Your task to perform on an android device: open chrome privacy settings Image 0: 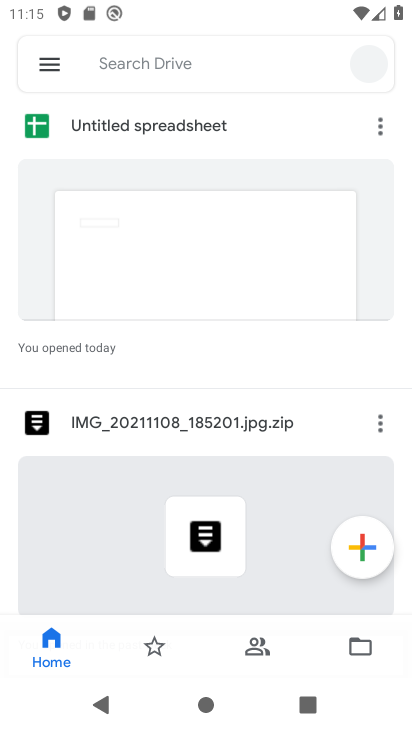
Step 0: press home button
Your task to perform on an android device: open chrome privacy settings Image 1: 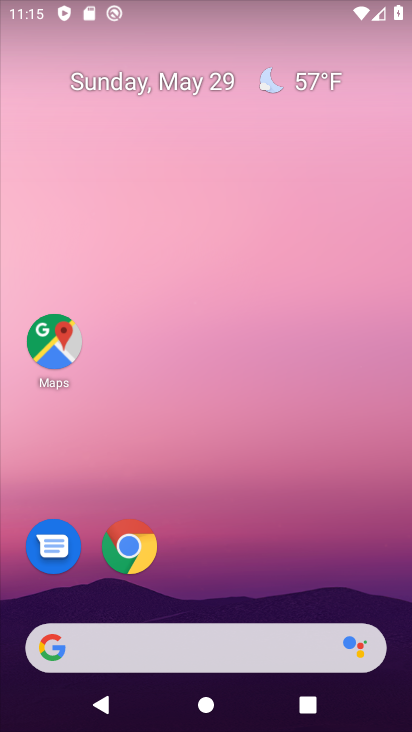
Step 1: click (135, 554)
Your task to perform on an android device: open chrome privacy settings Image 2: 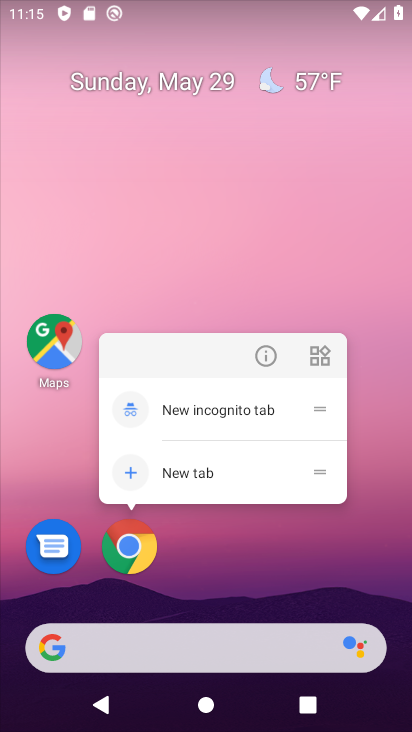
Step 2: click (134, 544)
Your task to perform on an android device: open chrome privacy settings Image 3: 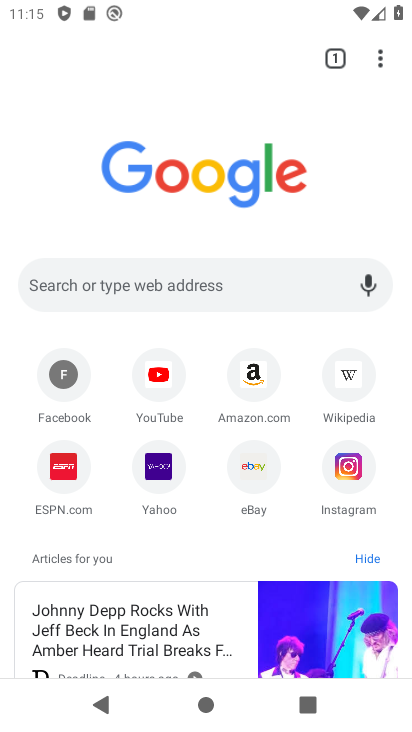
Step 3: drag from (376, 66) to (187, 492)
Your task to perform on an android device: open chrome privacy settings Image 4: 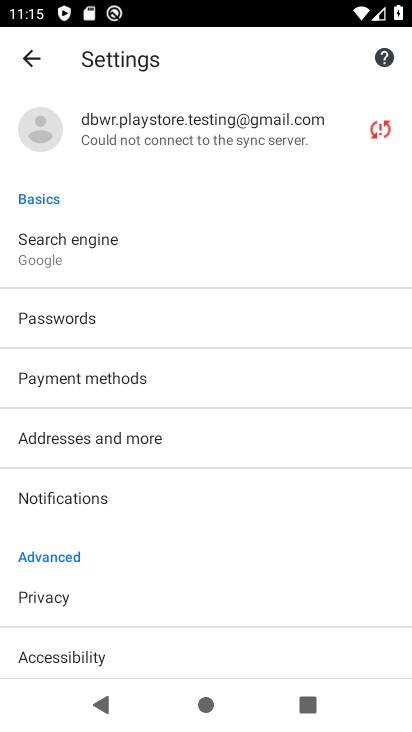
Step 4: click (54, 598)
Your task to perform on an android device: open chrome privacy settings Image 5: 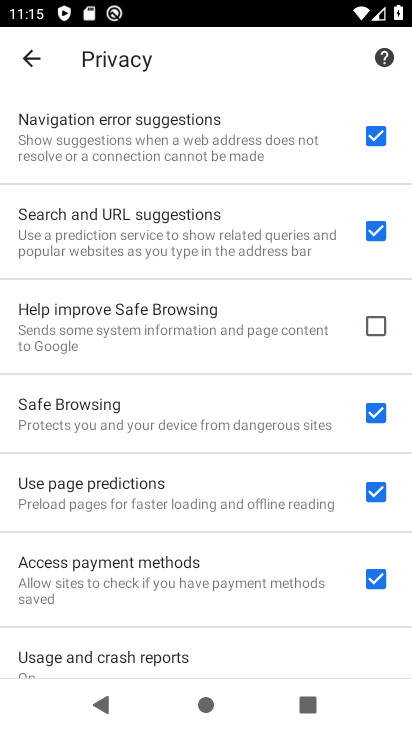
Step 5: task complete